Your task to perform on an android device: Search for jbl flip 4 on target, select the first entry, and add it to the cart. Image 0: 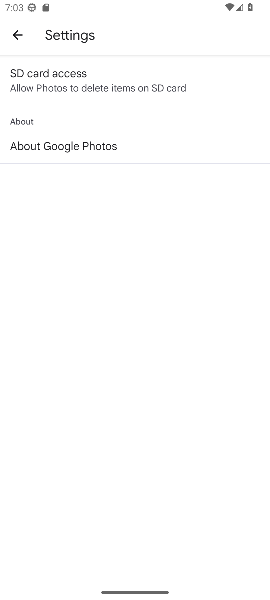
Step 0: press home button
Your task to perform on an android device: Search for jbl flip 4 on target, select the first entry, and add it to the cart. Image 1: 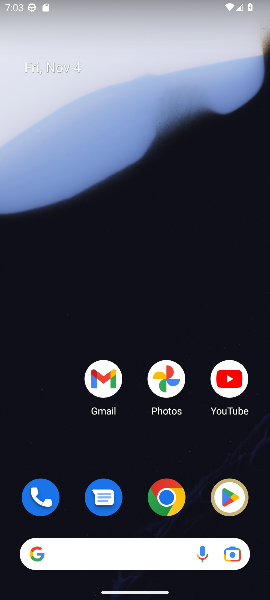
Step 1: click (171, 505)
Your task to perform on an android device: Search for jbl flip 4 on target, select the first entry, and add it to the cart. Image 2: 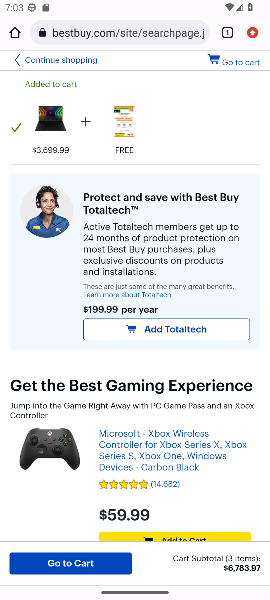
Step 2: click (116, 33)
Your task to perform on an android device: Search for jbl flip 4 on target, select the first entry, and add it to the cart. Image 3: 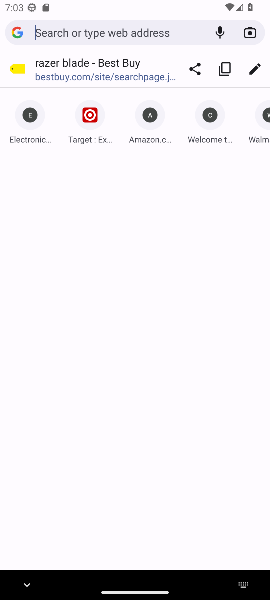
Step 3: click (89, 119)
Your task to perform on an android device: Search for jbl flip 4 on target, select the first entry, and add it to the cart. Image 4: 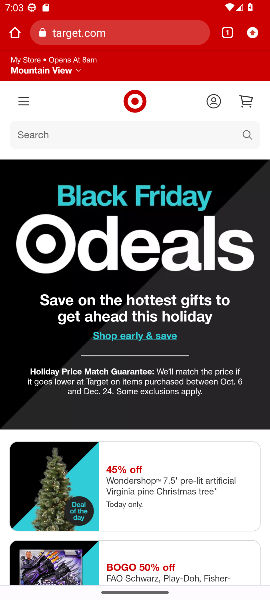
Step 4: click (251, 134)
Your task to perform on an android device: Search for jbl flip 4 on target, select the first entry, and add it to the cart. Image 5: 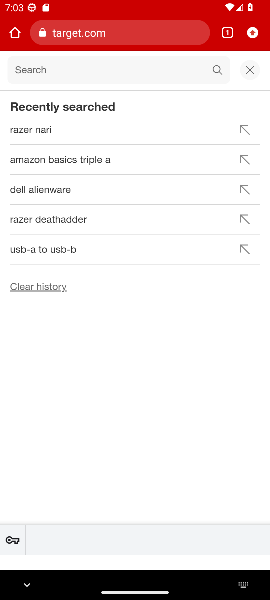
Step 5: type " jbl flip 4"
Your task to perform on an android device: Search for jbl flip 4 on target, select the first entry, and add it to the cart. Image 6: 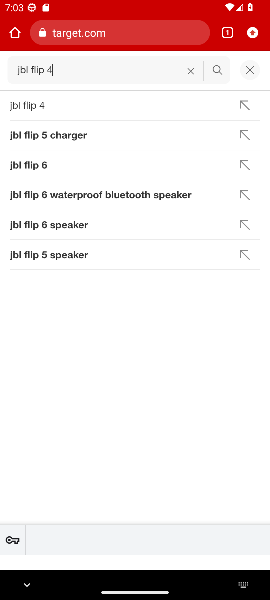
Step 6: click (33, 110)
Your task to perform on an android device: Search for jbl flip 4 on target, select the first entry, and add it to the cart. Image 7: 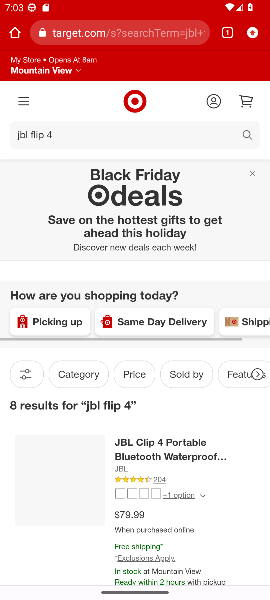
Step 7: task complete